Your task to perform on an android device: change the upload size in google photos Image 0: 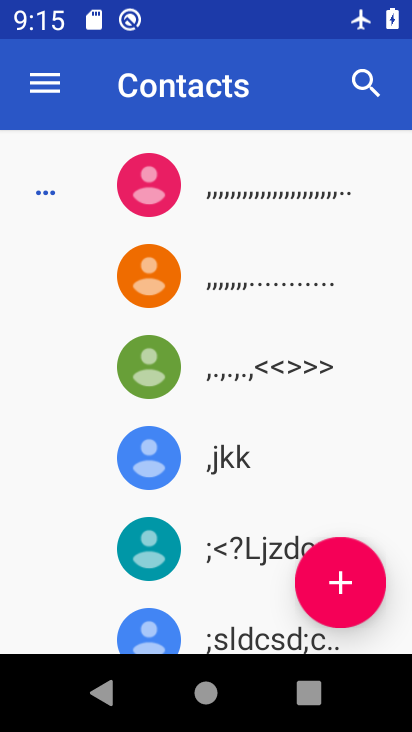
Step 0: press home button
Your task to perform on an android device: change the upload size in google photos Image 1: 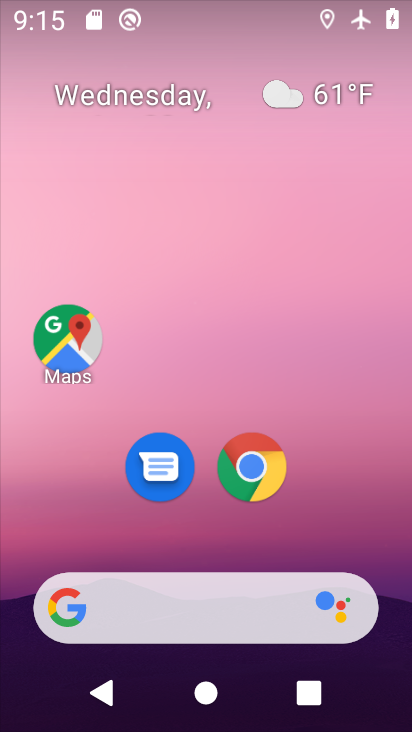
Step 1: drag from (334, 532) to (288, 255)
Your task to perform on an android device: change the upload size in google photos Image 2: 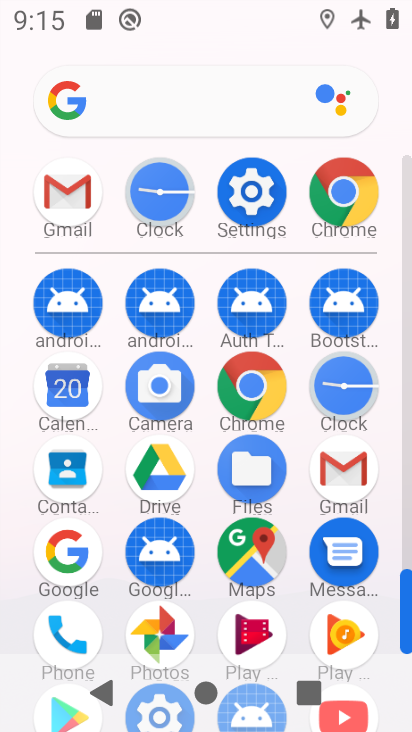
Step 2: drag from (402, 512) to (369, 323)
Your task to perform on an android device: change the upload size in google photos Image 3: 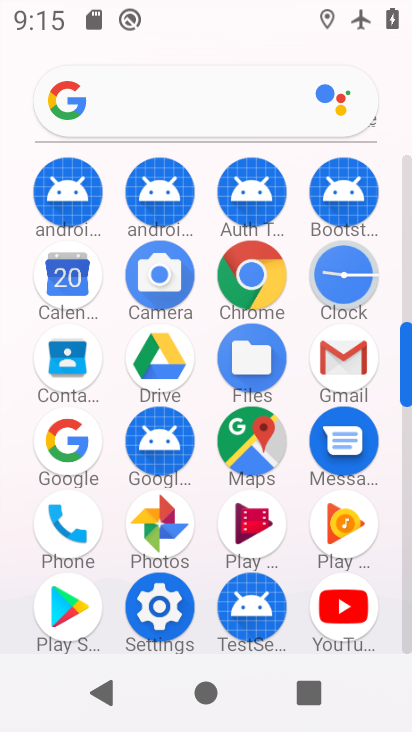
Step 3: click (155, 523)
Your task to perform on an android device: change the upload size in google photos Image 4: 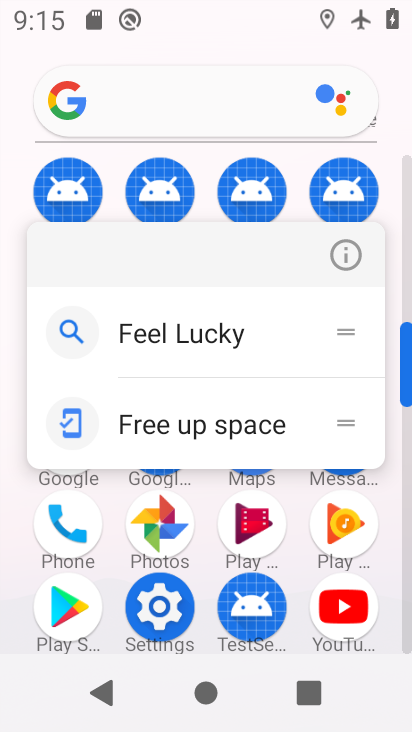
Step 4: click (155, 523)
Your task to perform on an android device: change the upload size in google photos Image 5: 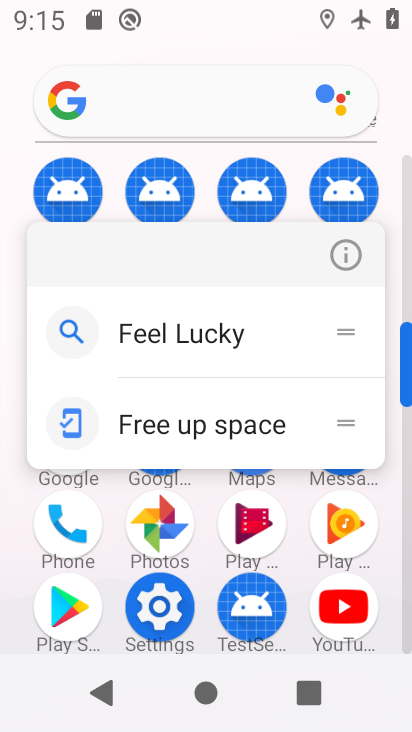
Step 5: click (155, 523)
Your task to perform on an android device: change the upload size in google photos Image 6: 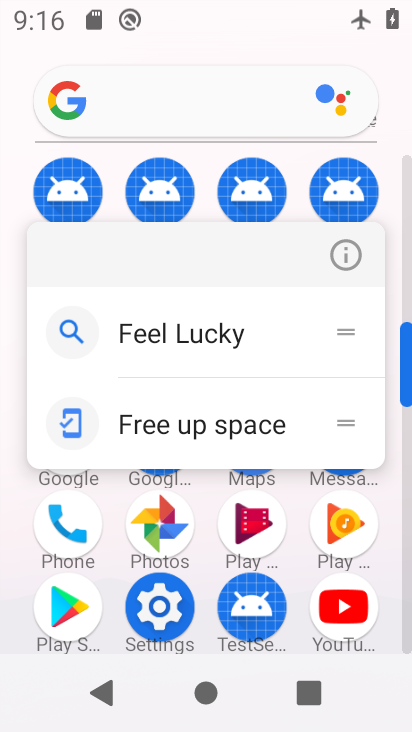
Step 6: click (390, 536)
Your task to perform on an android device: change the upload size in google photos Image 7: 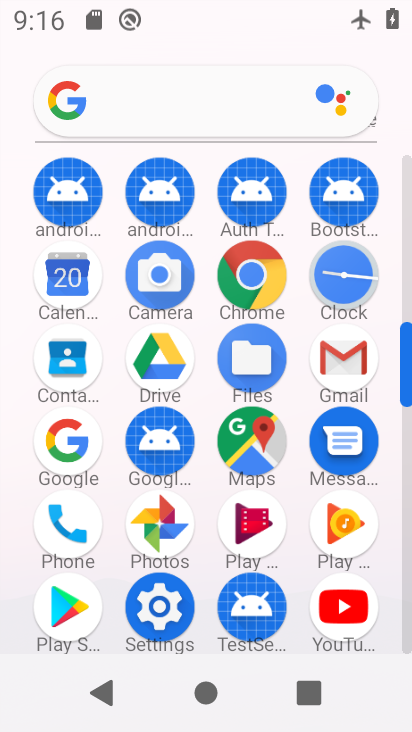
Step 7: click (155, 536)
Your task to perform on an android device: change the upload size in google photos Image 8: 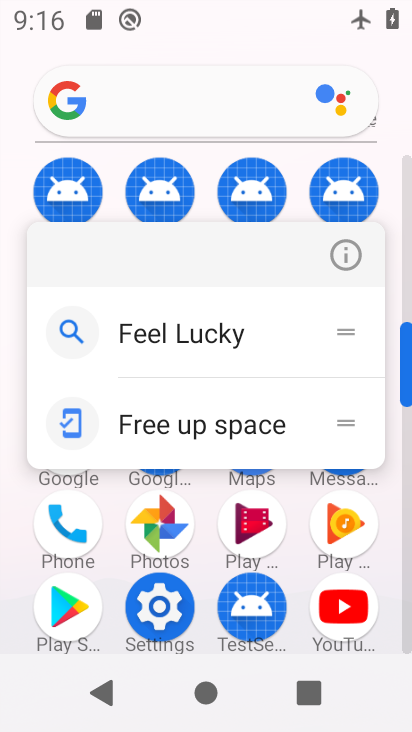
Step 8: click (155, 536)
Your task to perform on an android device: change the upload size in google photos Image 9: 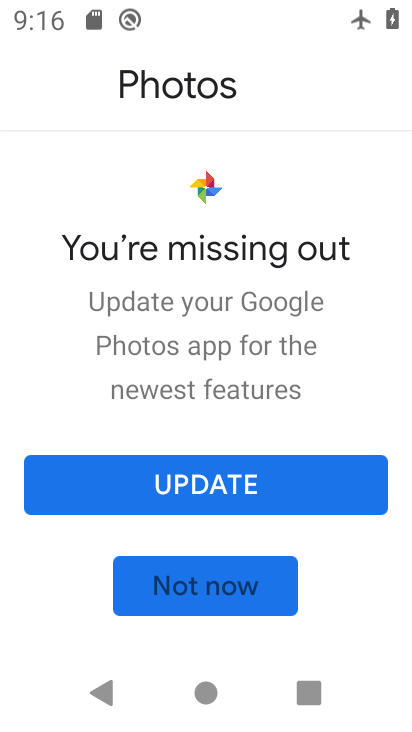
Step 9: click (233, 482)
Your task to perform on an android device: change the upload size in google photos Image 10: 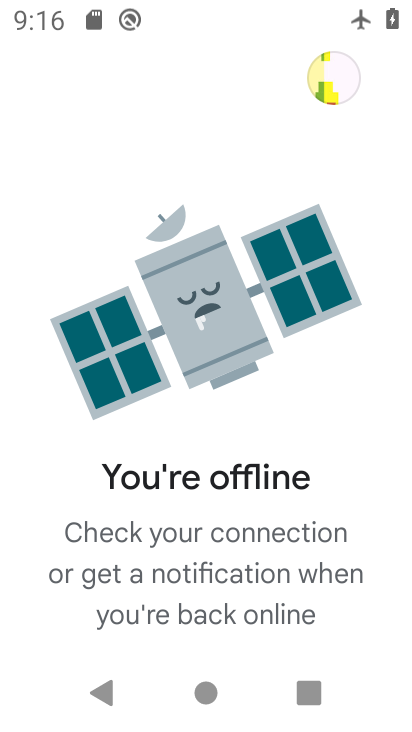
Step 10: task complete